Your task to perform on an android device: Open the Play Movies app and select the watchlist tab. Image 0: 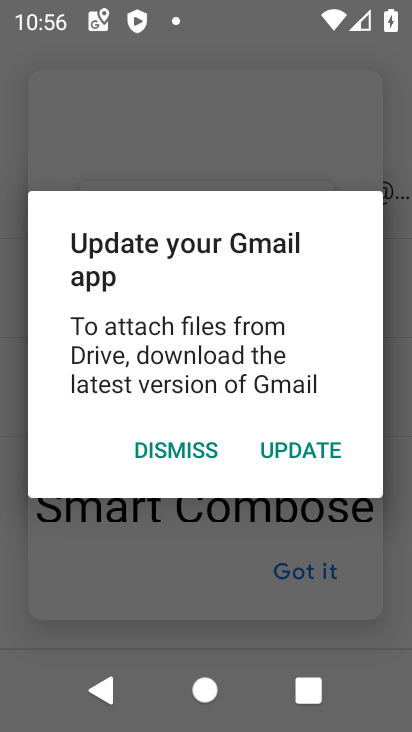
Step 0: press home button
Your task to perform on an android device: Open the Play Movies app and select the watchlist tab. Image 1: 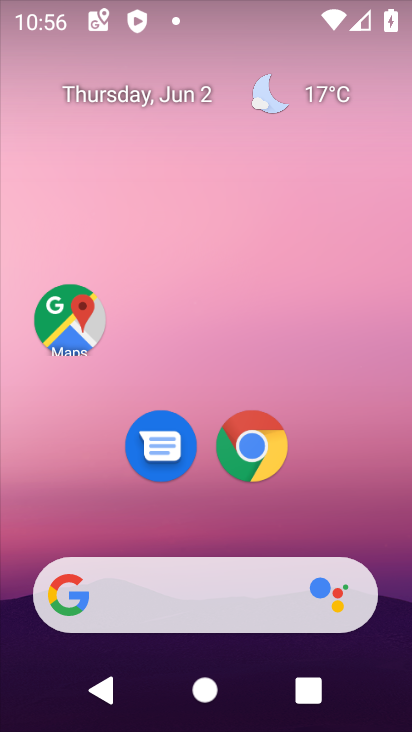
Step 1: drag from (374, 505) to (274, 76)
Your task to perform on an android device: Open the Play Movies app and select the watchlist tab. Image 2: 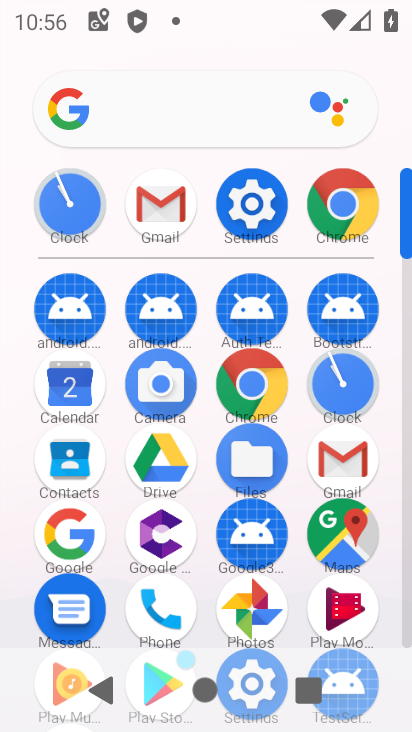
Step 2: drag from (297, 503) to (318, 242)
Your task to perform on an android device: Open the Play Movies app and select the watchlist tab. Image 3: 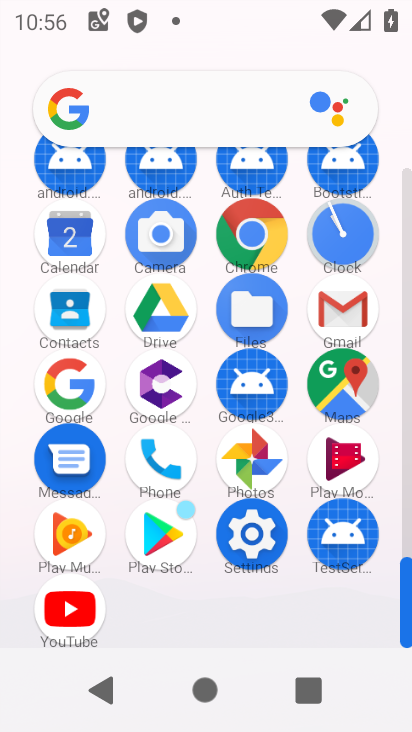
Step 3: click (343, 466)
Your task to perform on an android device: Open the Play Movies app and select the watchlist tab. Image 4: 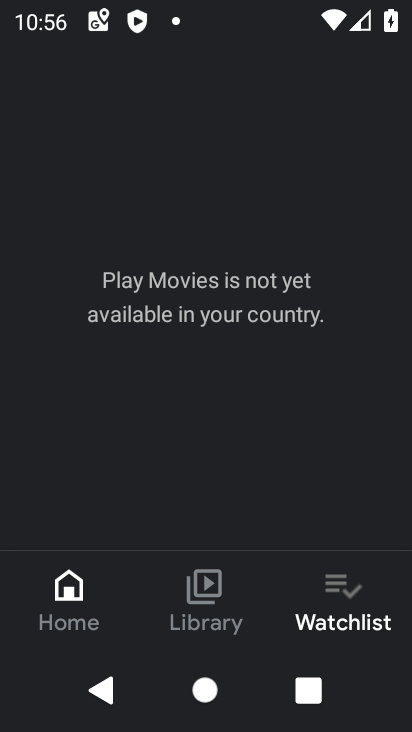
Step 4: task complete